Your task to perform on an android device: Go to Maps Image 0: 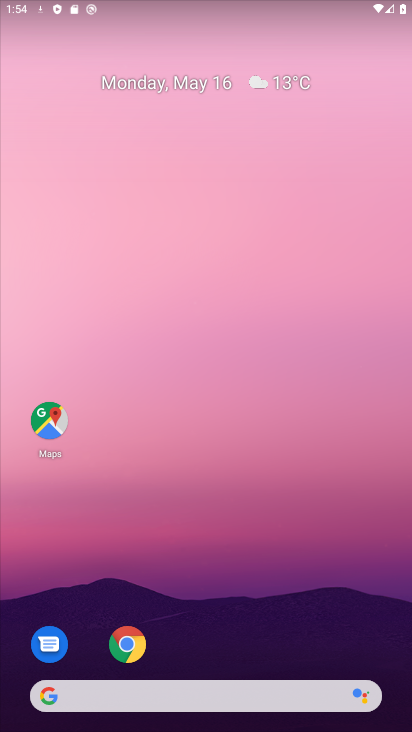
Step 0: click (45, 416)
Your task to perform on an android device: Go to Maps Image 1: 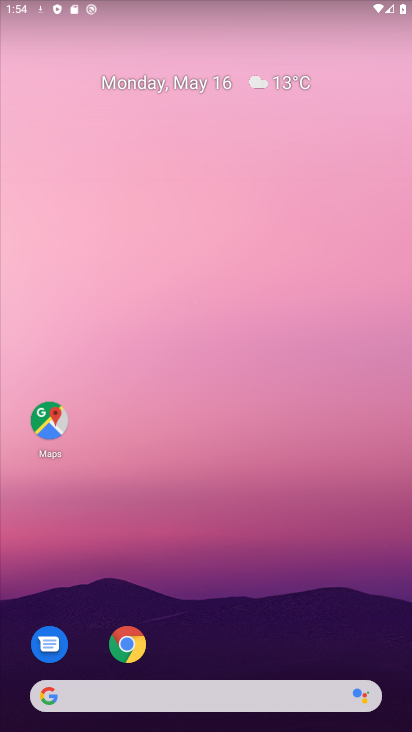
Step 1: click (45, 416)
Your task to perform on an android device: Go to Maps Image 2: 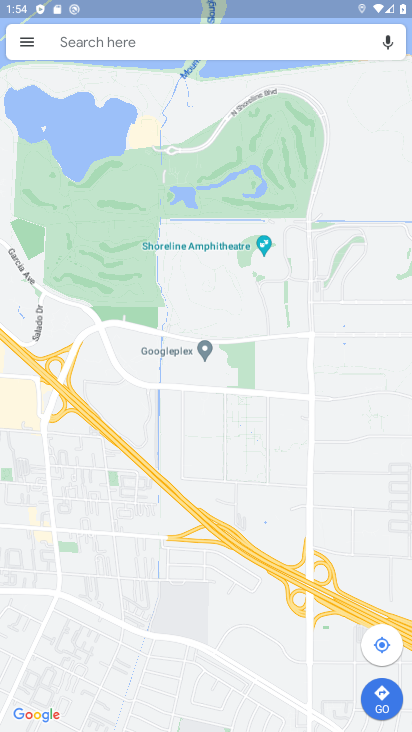
Step 2: task complete